Your task to perform on an android device: Go to accessibility settings Image 0: 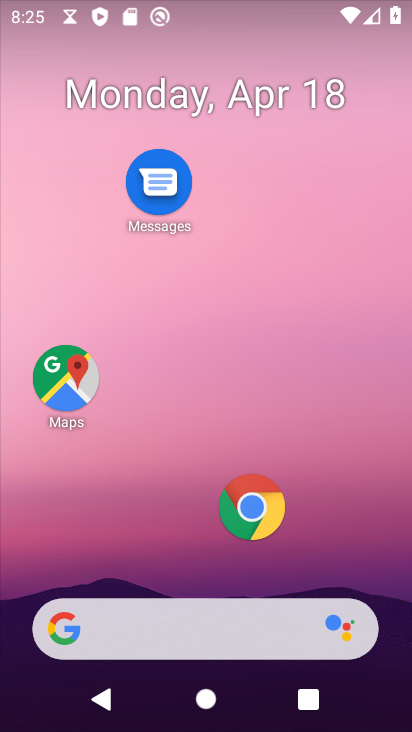
Step 0: drag from (238, 562) to (323, 164)
Your task to perform on an android device: Go to accessibility settings Image 1: 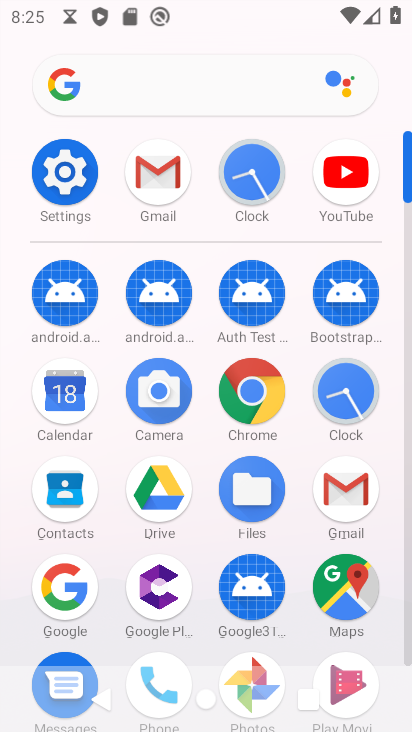
Step 1: click (70, 163)
Your task to perform on an android device: Go to accessibility settings Image 2: 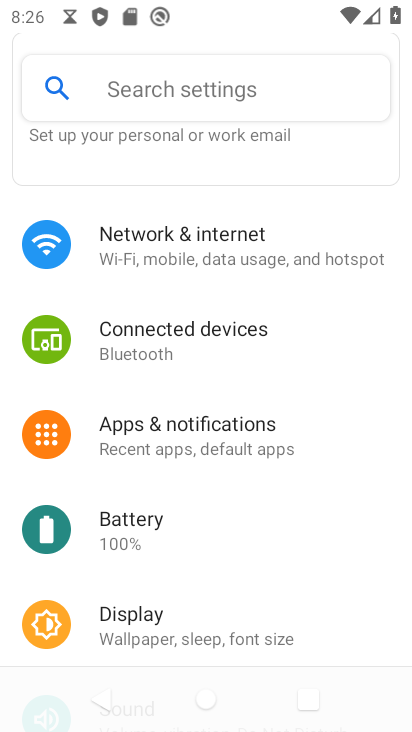
Step 2: drag from (198, 640) to (231, 325)
Your task to perform on an android device: Go to accessibility settings Image 3: 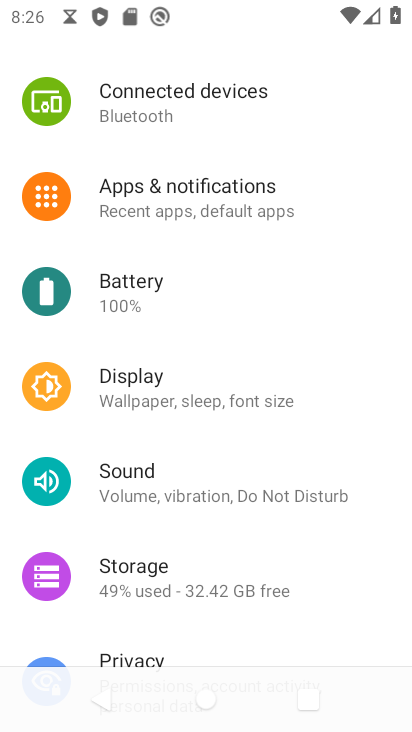
Step 3: drag from (191, 664) to (188, 344)
Your task to perform on an android device: Go to accessibility settings Image 4: 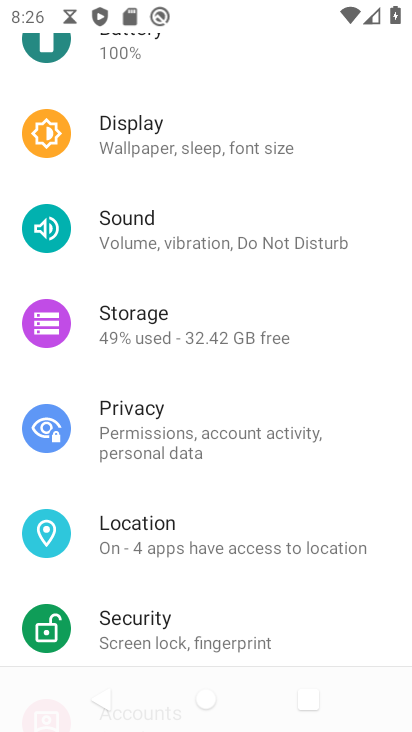
Step 4: drag from (223, 637) to (214, 390)
Your task to perform on an android device: Go to accessibility settings Image 5: 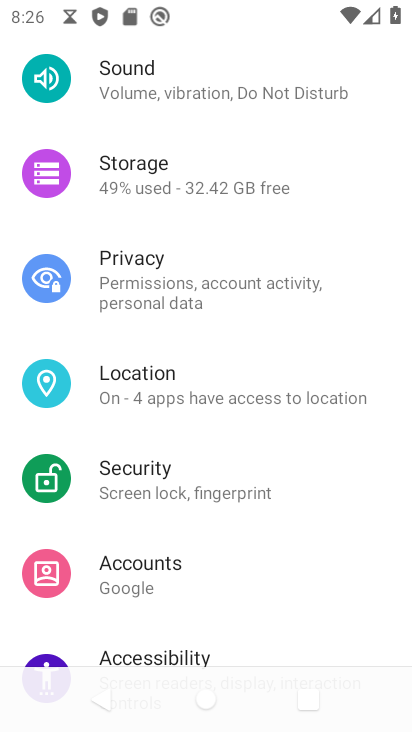
Step 5: click (169, 658)
Your task to perform on an android device: Go to accessibility settings Image 6: 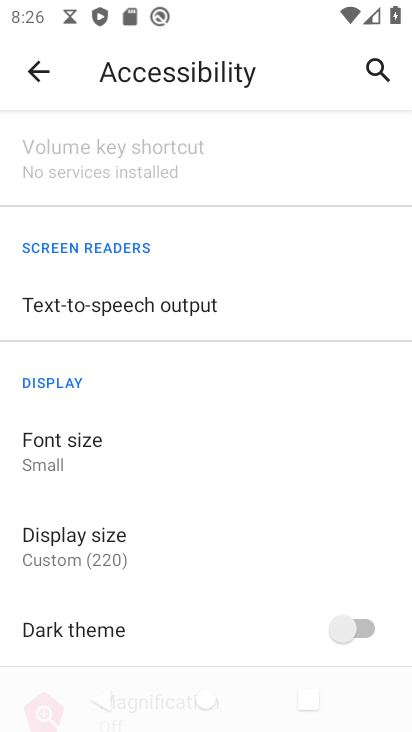
Step 6: task complete